Your task to perform on an android device: toggle notifications settings in the gmail app Image 0: 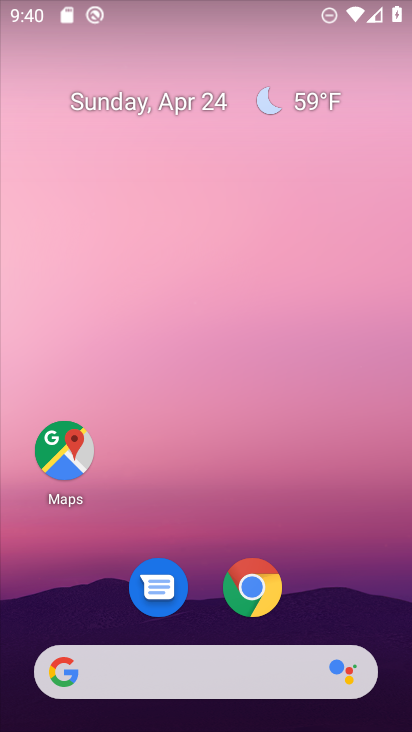
Step 0: drag from (215, 457) to (321, 33)
Your task to perform on an android device: toggle notifications settings in the gmail app Image 1: 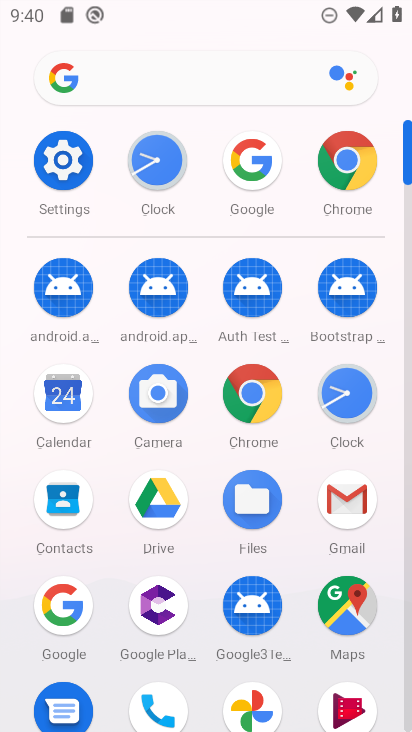
Step 1: click (345, 497)
Your task to perform on an android device: toggle notifications settings in the gmail app Image 2: 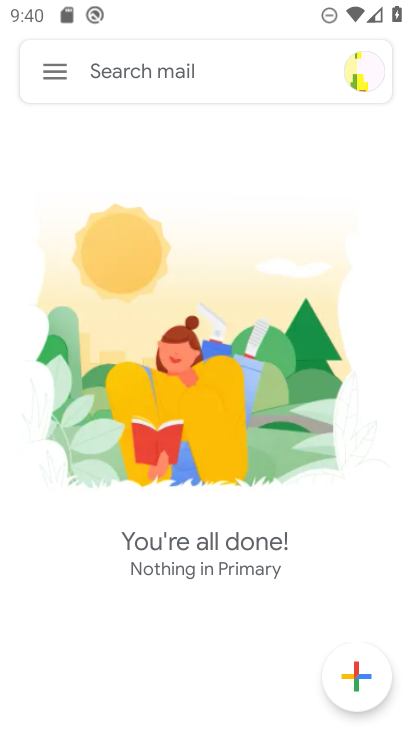
Step 2: click (57, 73)
Your task to perform on an android device: toggle notifications settings in the gmail app Image 3: 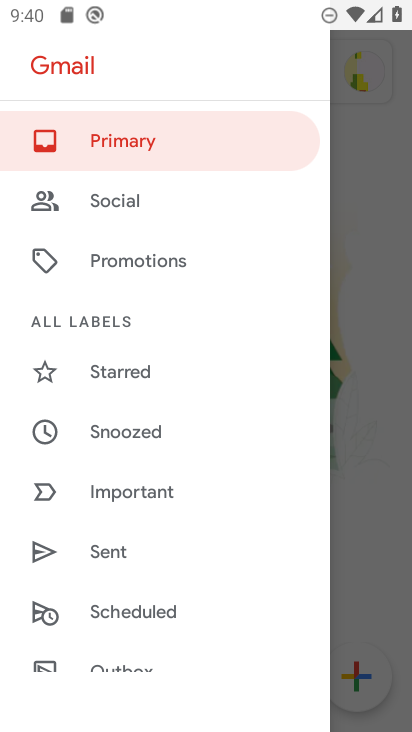
Step 3: drag from (106, 472) to (175, 369)
Your task to perform on an android device: toggle notifications settings in the gmail app Image 4: 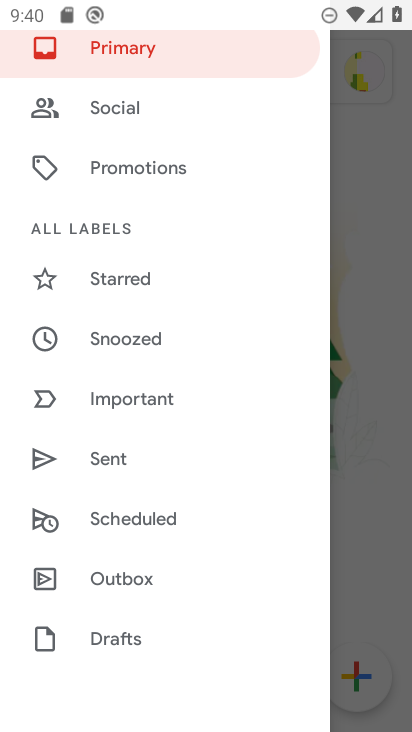
Step 4: drag from (122, 471) to (190, 375)
Your task to perform on an android device: toggle notifications settings in the gmail app Image 5: 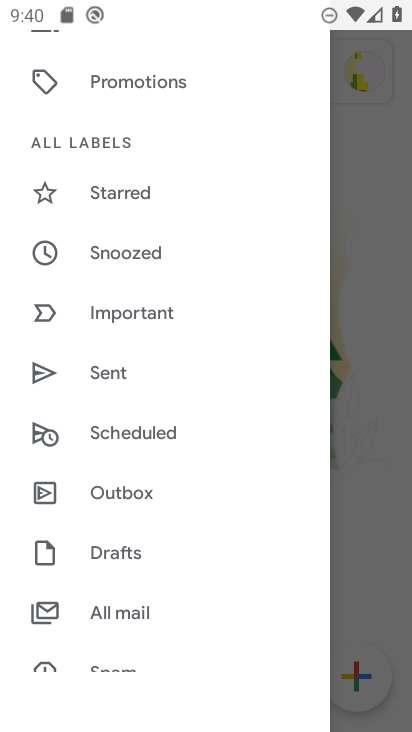
Step 5: drag from (131, 467) to (197, 382)
Your task to perform on an android device: toggle notifications settings in the gmail app Image 6: 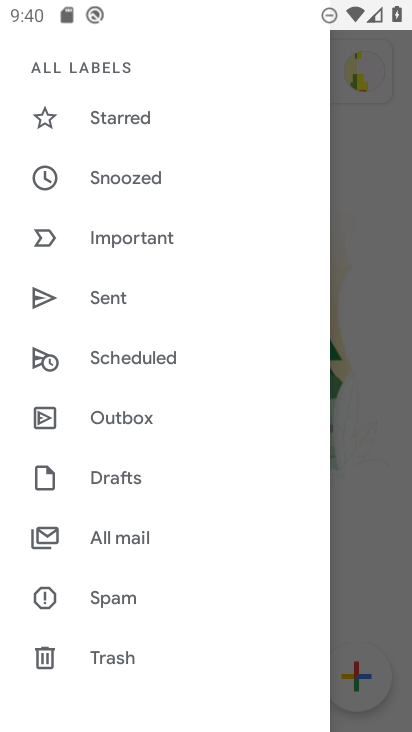
Step 6: drag from (102, 552) to (168, 462)
Your task to perform on an android device: toggle notifications settings in the gmail app Image 7: 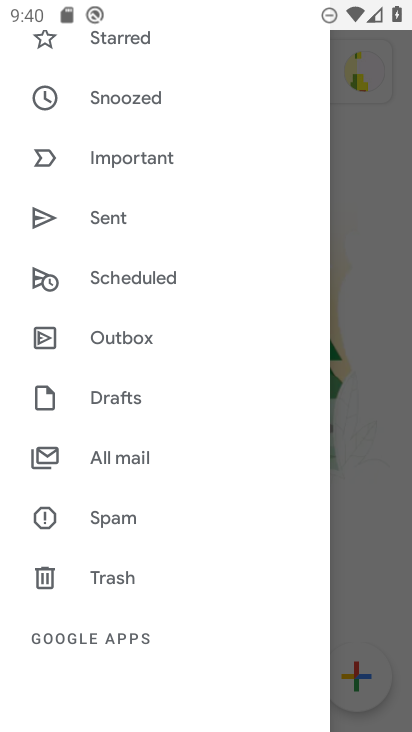
Step 7: drag from (103, 553) to (174, 454)
Your task to perform on an android device: toggle notifications settings in the gmail app Image 8: 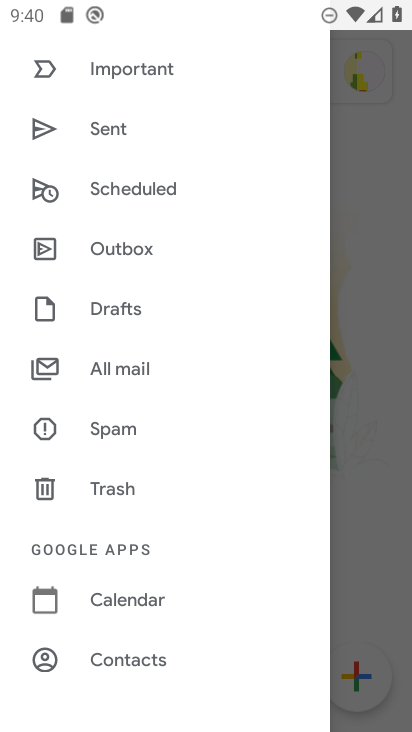
Step 8: drag from (156, 561) to (199, 473)
Your task to perform on an android device: toggle notifications settings in the gmail app Image 9: 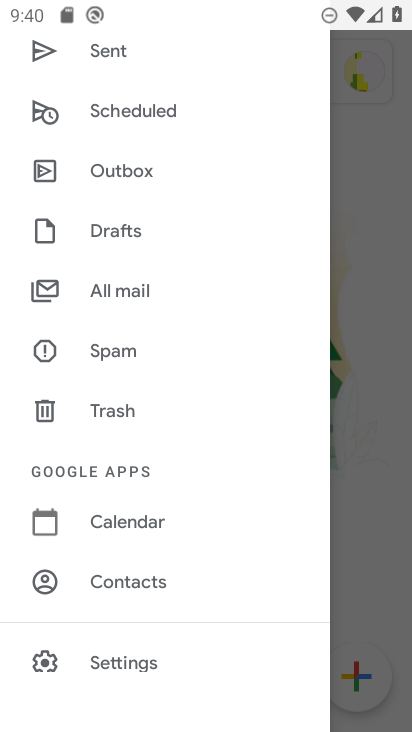
Step 9: drag from (131, 608) to (211, 504)
Your task to perform on an android device: toggle notifications settings in the gmail app Image 10: 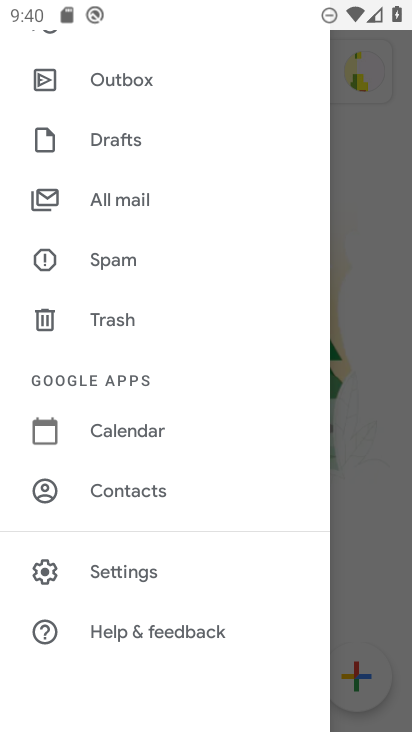
Step 10: click (135, 575)
Your task to perform on an android device: toggle notifications settings in the gmail app Image 11: 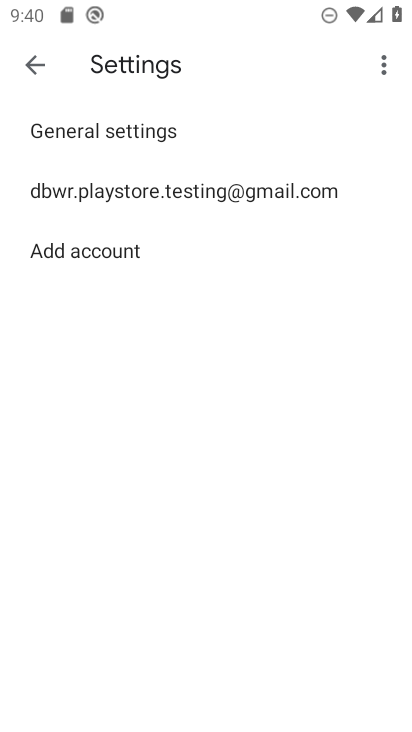
Step 11: click (227, 201)
Your task to perform on an android device: toggle notifications settings in the gmail app Image 12: 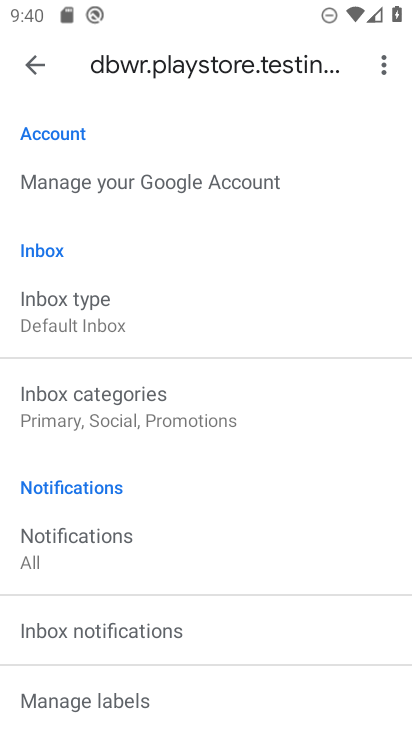
Step 12: drag from (196, 487) to (245, 321)
Your task to perform on an android device: toggle notifications settings in the gmail app Image 13: 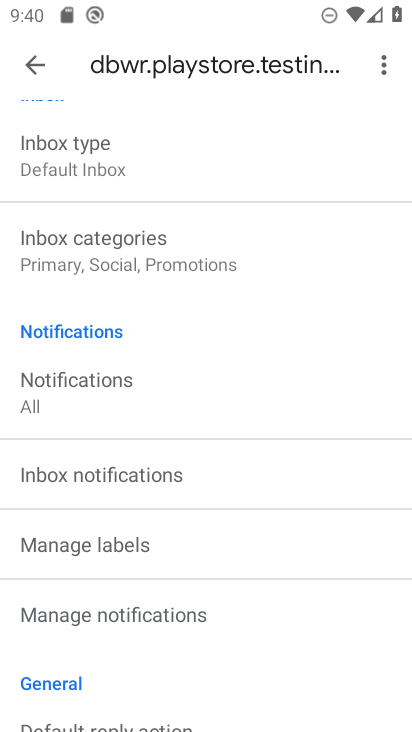
Step 13: click (106, 613)
Your task to perform on an android device: toggle notifications settings in the gmail app Image 14: 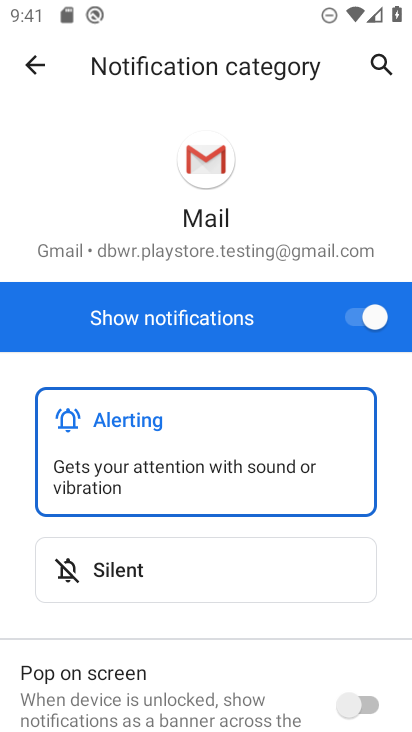
Step 14: click (380, 315)
Your task to perform on an android device: toggle notifications settings in the gmail app Image 15: 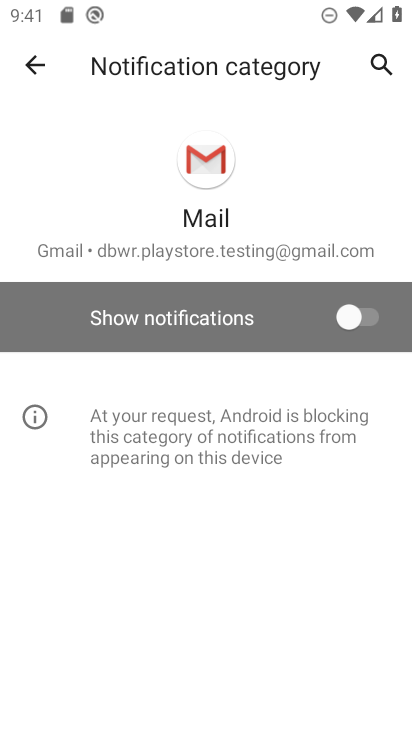
Step 15: task complete